Your task to perform on an android device: open a bookmark in the chrome app Image 0: 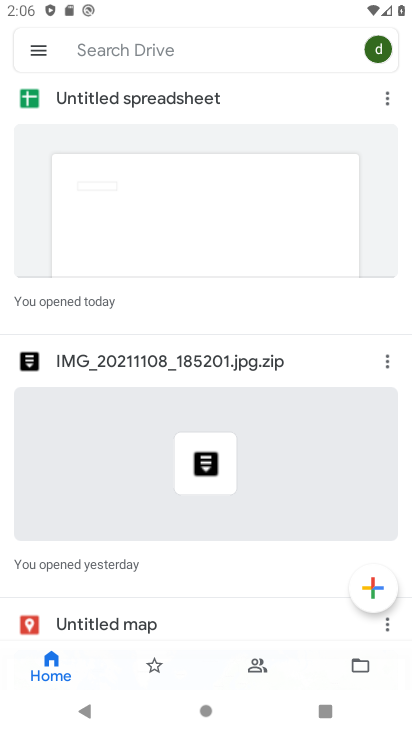
Step 0: press home button
Your task to perform on an android device: open a bookmark in the chrome app Image 1: 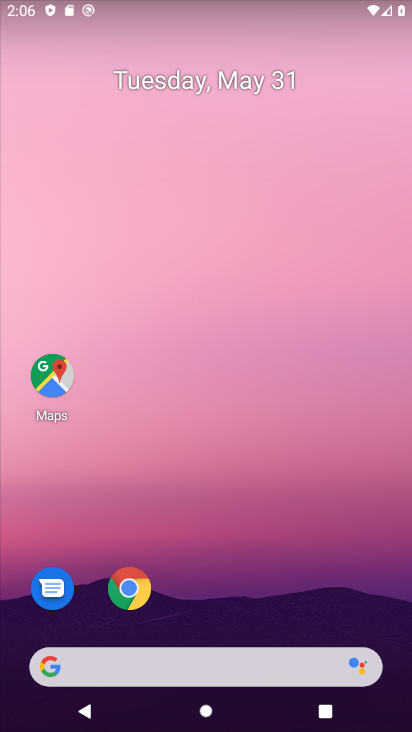
Step 1: click (134, 593)
Your task to perform on an android device: open a bookmark in the chrome app Image 2: 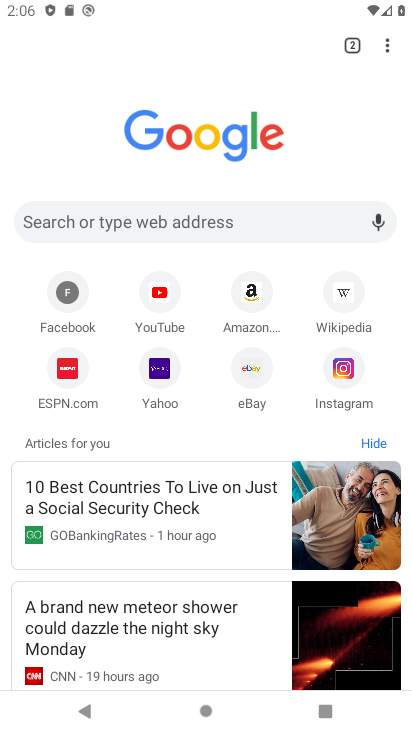
Step 2: click (387, 51)
Your task to perform on an android device: open a bookmark in the chrome app Image 3: 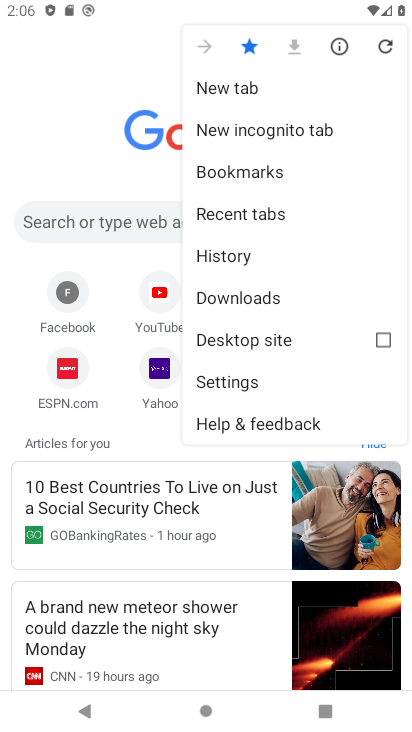
Step 3: click (245, 185)
Your task to perform on an android device: open a bookmark in the chrome app Image 4: 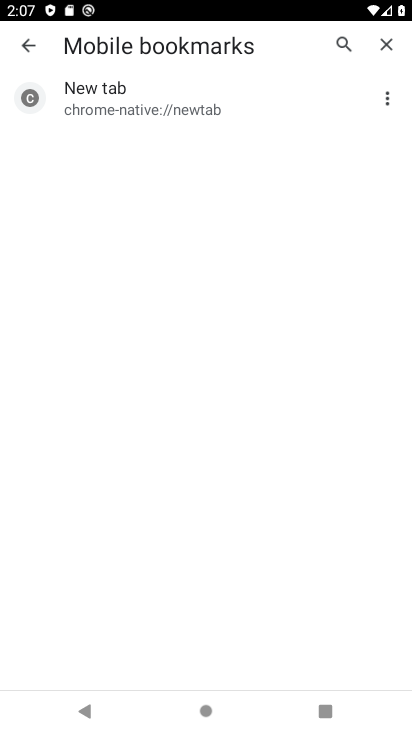
Step 4: task complete